Your task to perform on an android device: Open wifi settings Image 0: 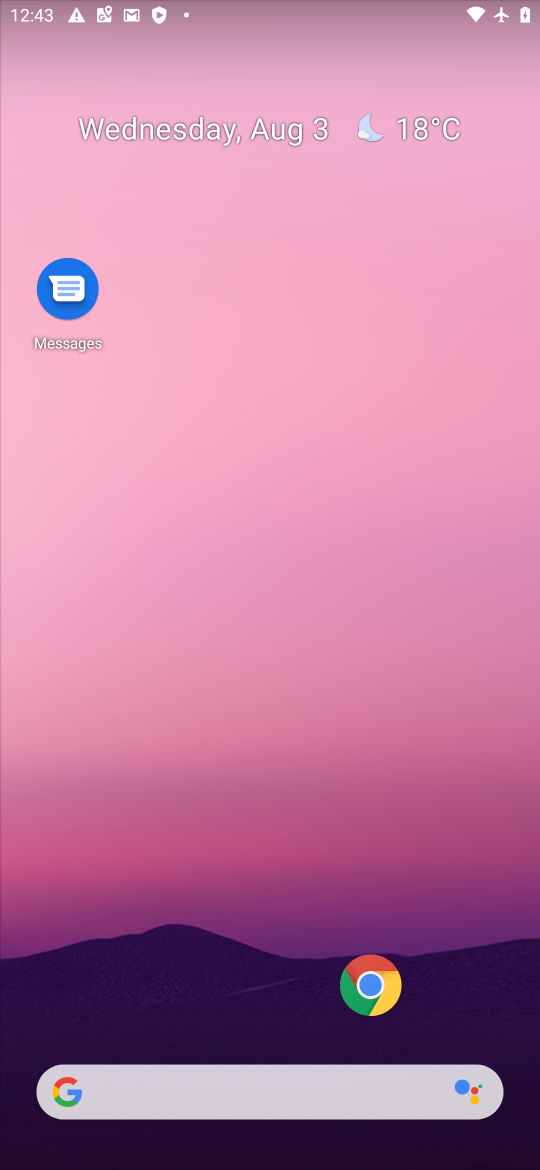
Step 0: drag from (343, 1033) to (268, 257)
Your task to perform on an android device: Open wifi settings Image 1: 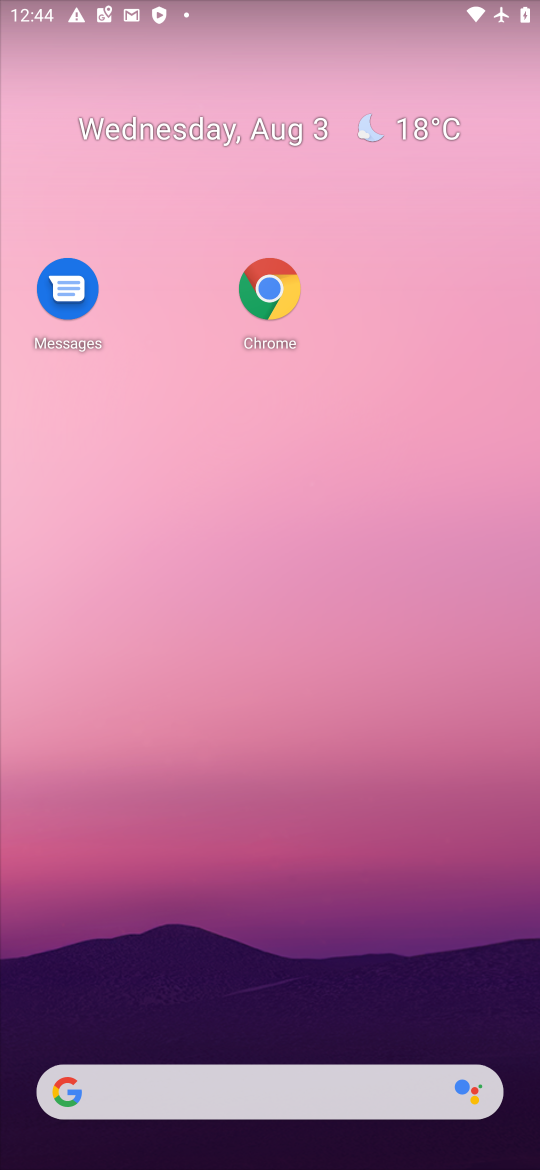
Step 1: drag from (260, 1037) to (264, 374)
Your task to perform on an android device: Open wifi settings Image 2: 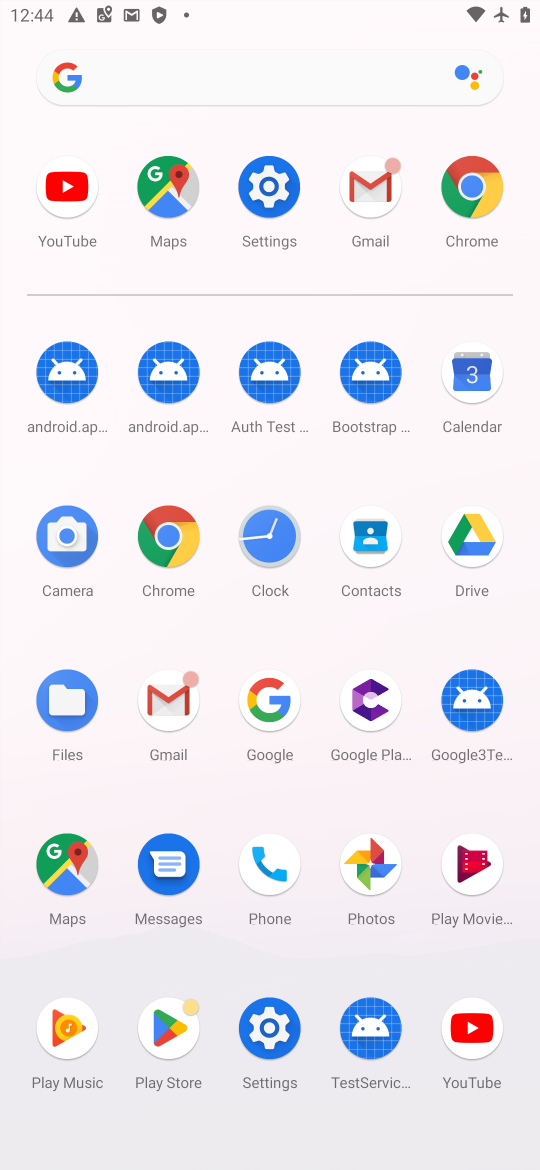
Step 2: click (249, 228)
Your task to perform on an android device: Open wifi settings Image 3: 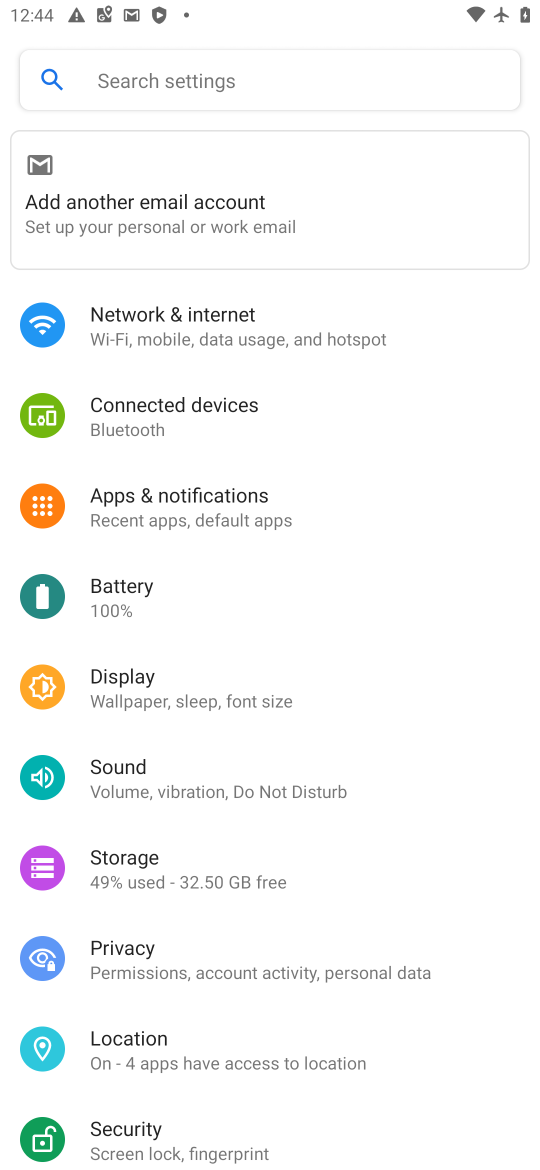
Step 3: click (198, 334)
Your task to perform on an android device: Open wifi settings Image 4: 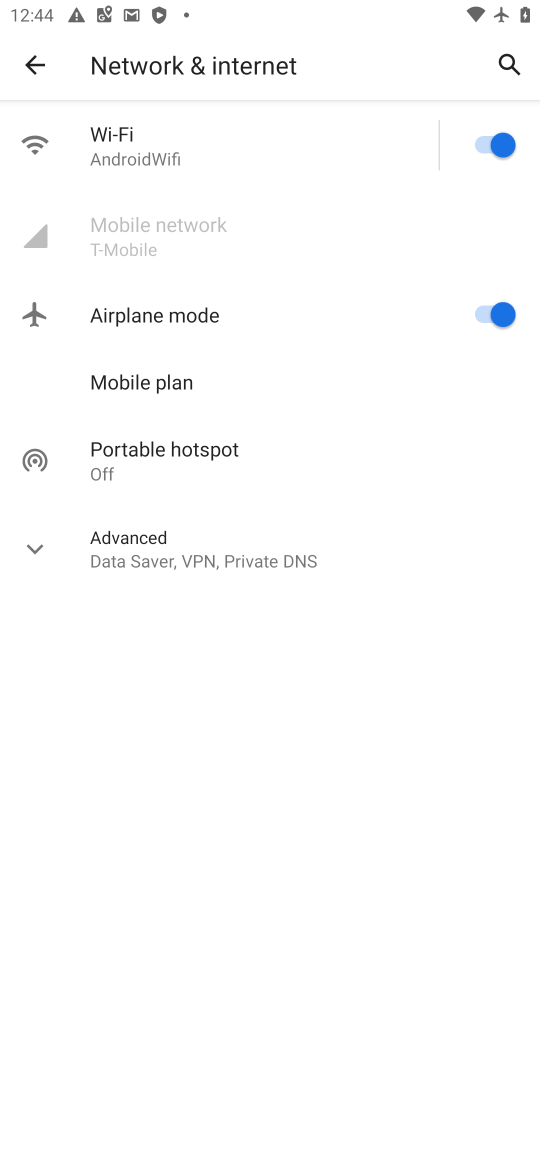
Step 4: task complete